Your task to perform on an android device: turn off data saver in the chrome app Image 0: 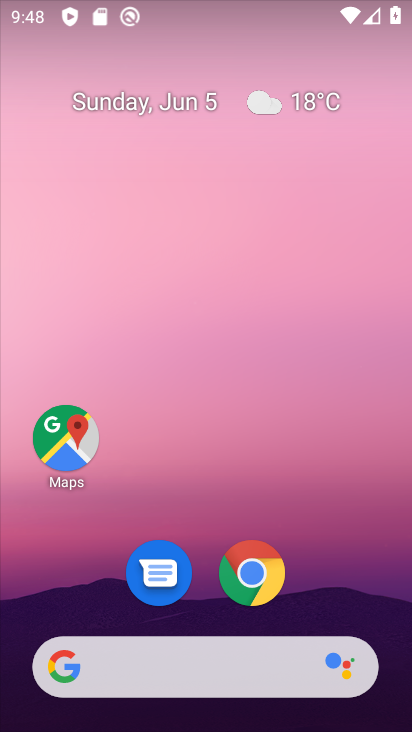
Step 0: click (264, 583)
Your task to perform on an android device: turn off data saver in the chrome app Image 1: 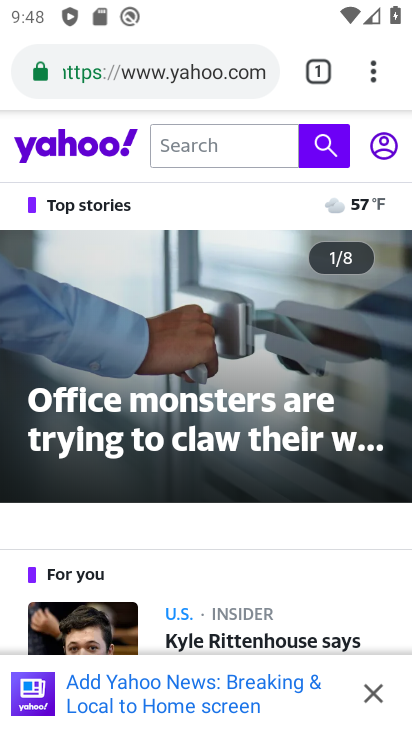
Step 1: click (368, 70)
Your task to perform on an android device: turn off data saver in the chrome app Image 2: 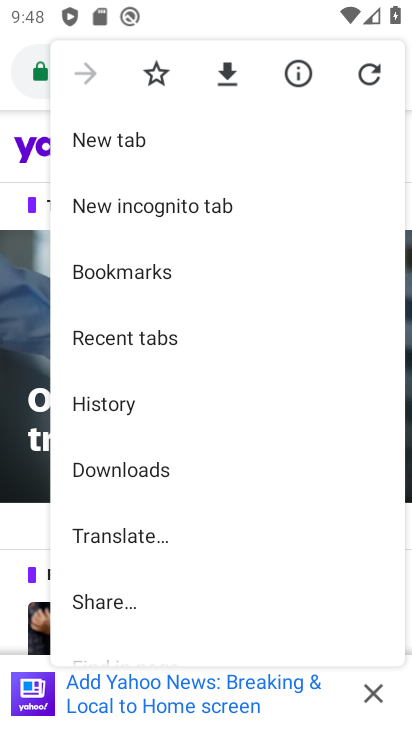
Step 2: drag from (152, 642) to (156, 255)
Your task to perform on an android device: turn off data saver in the chrome app Image 3: 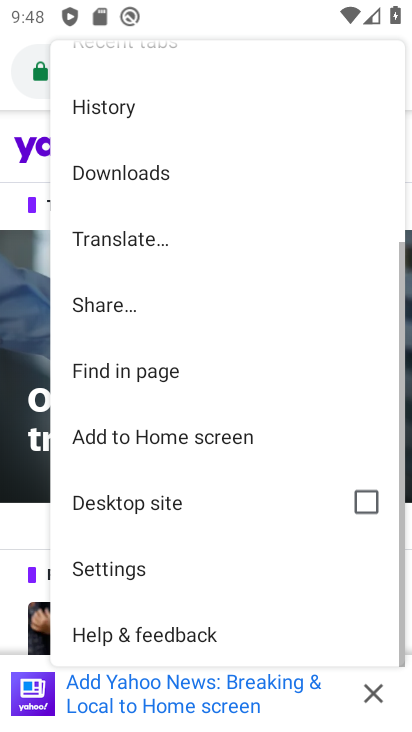
Step 3: click (121, 565)
Your task to perform on an android device: turn off data saver in the chrome app Image 4: 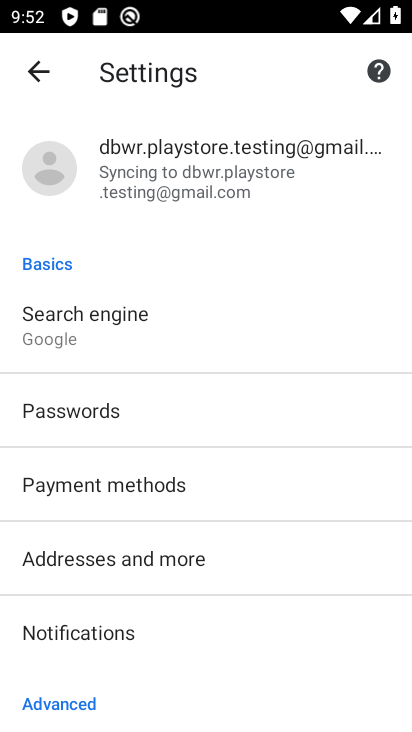
Step 4: drag from (162, 720) to (265, 427)
Your task to perform on an android device: turn off data saver in the chrome app Image 5: 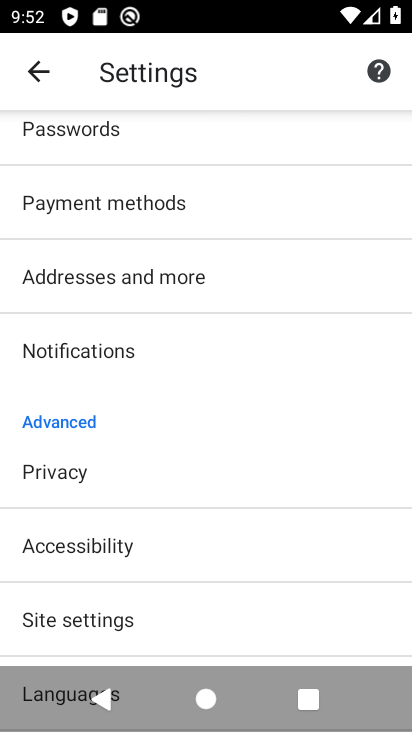
Step 5: drag from (131, 603) to (131, 284)
Your task to perform on an android device: turn off data saver in the chrome app Image 6: 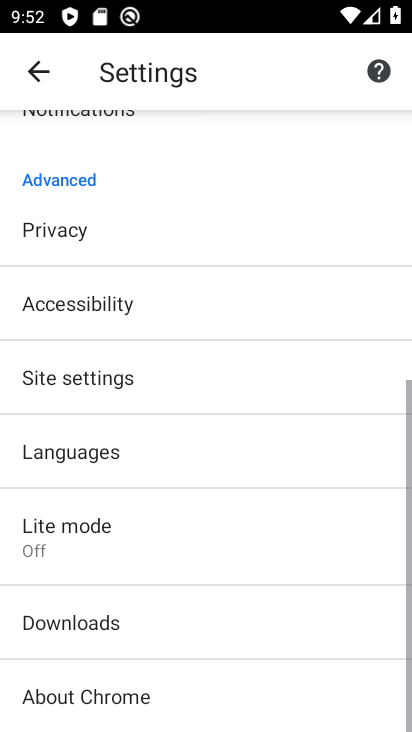
Step 6: click (89, 538)
Your task to perform on an android device: turn off data saver in the chrome app Image 7: 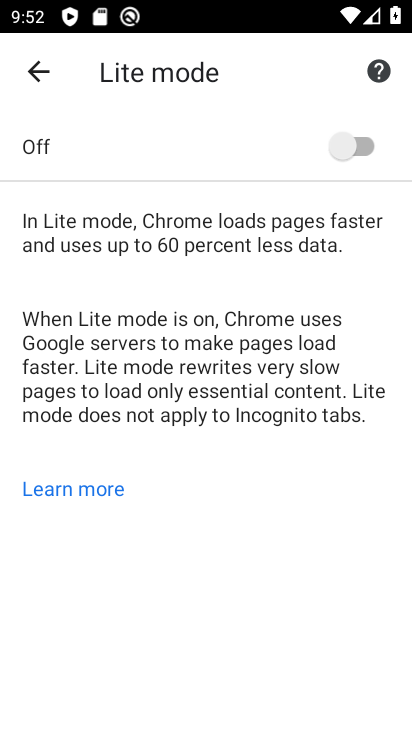
Step 7: task complete